Your task to perform on an android device: Open Amazon Image 0: 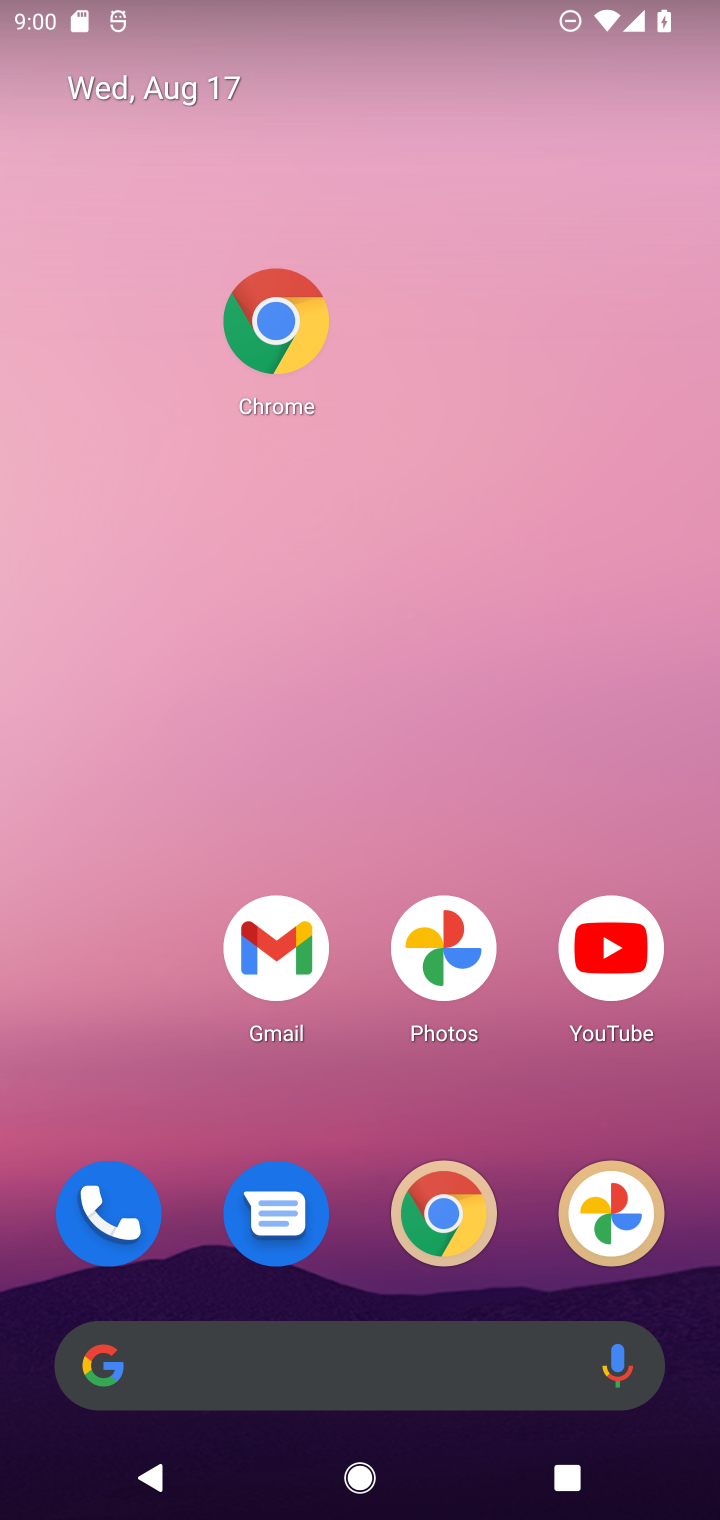
Step 0: click (406, 1237)
Your task to perform on an android device: Open Amazon Image 1: 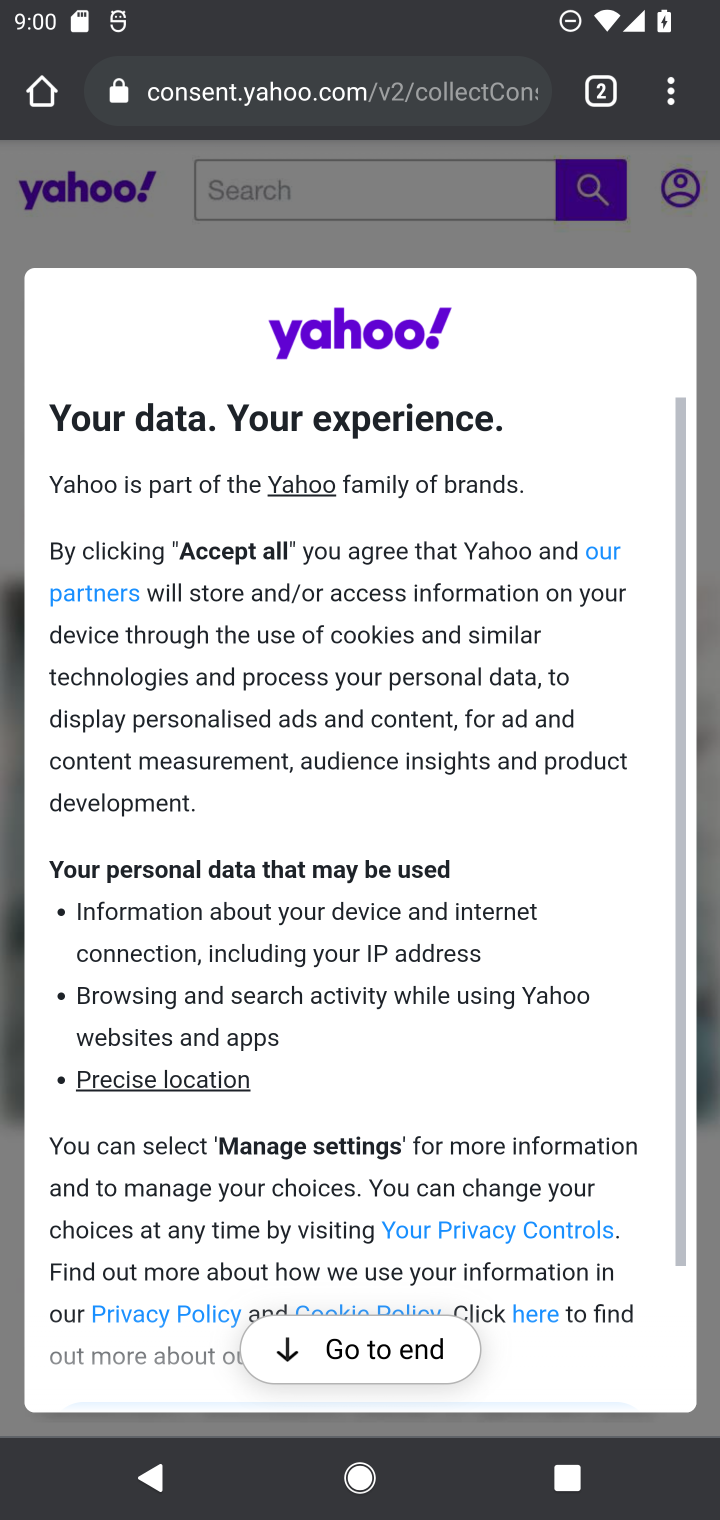
Step 1: click (521, 113)
Your task to perform on an android device: Open Amazon Image 2: 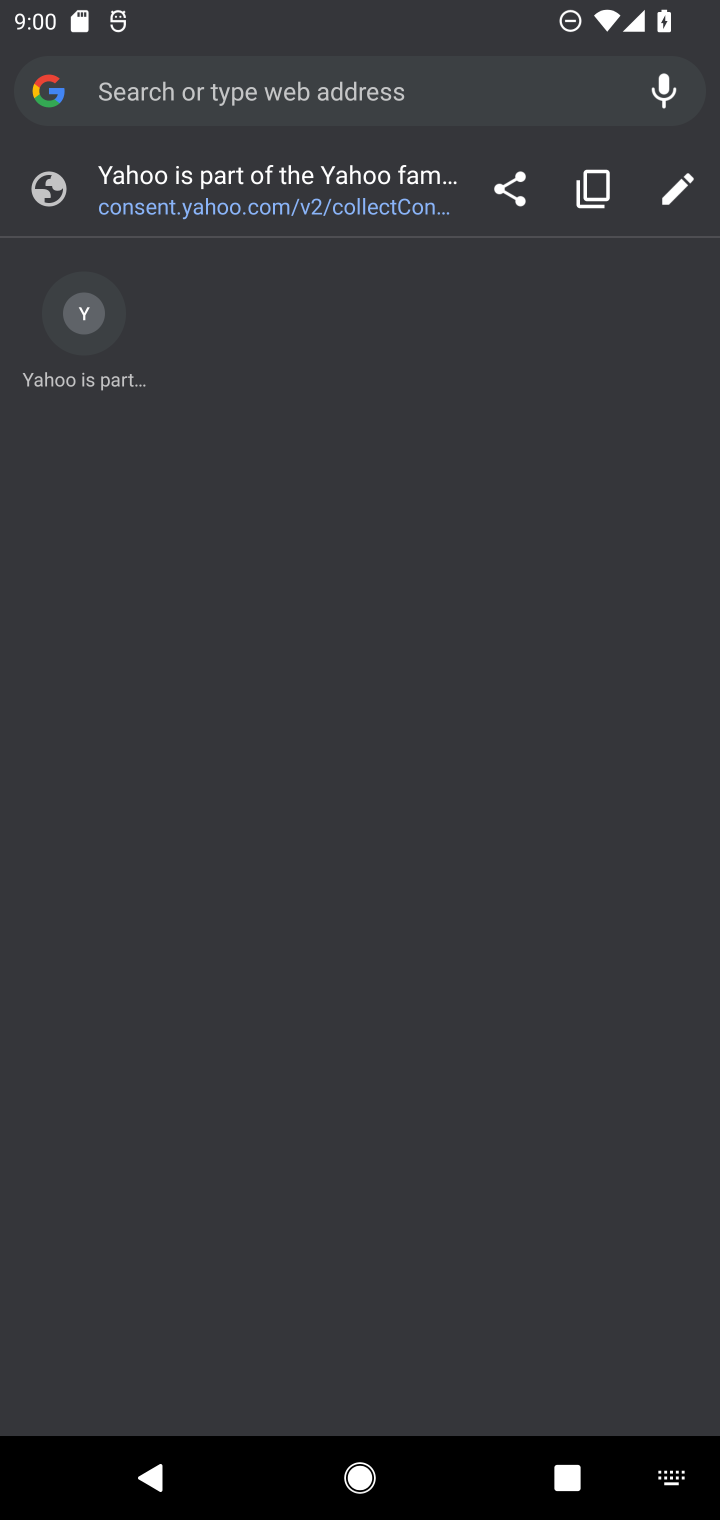
Step 2: type "amazon"
Your task to perform on an android device: Open Amazon Image 3: 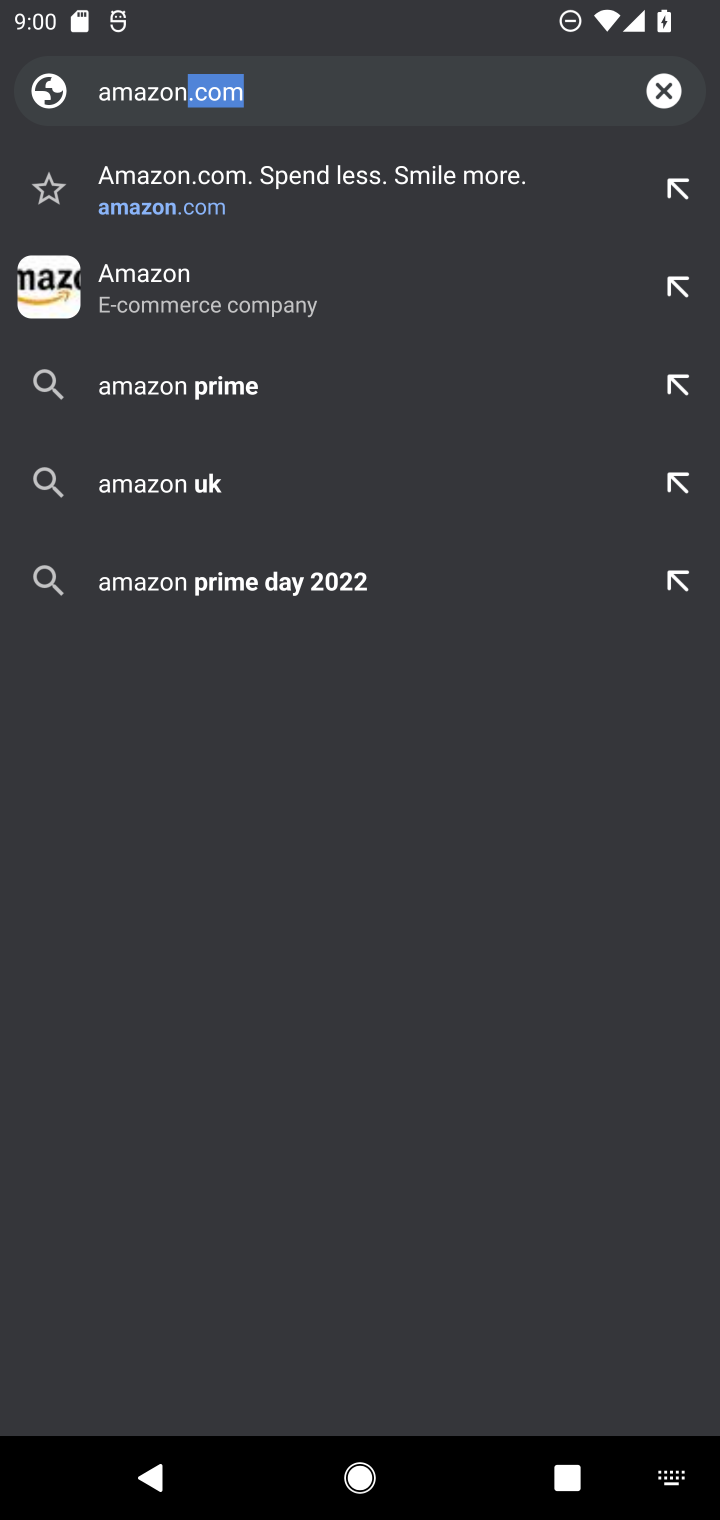
Step 3: click (378, 286)
Your task to perform on an android device: Open Amazon Image 4: 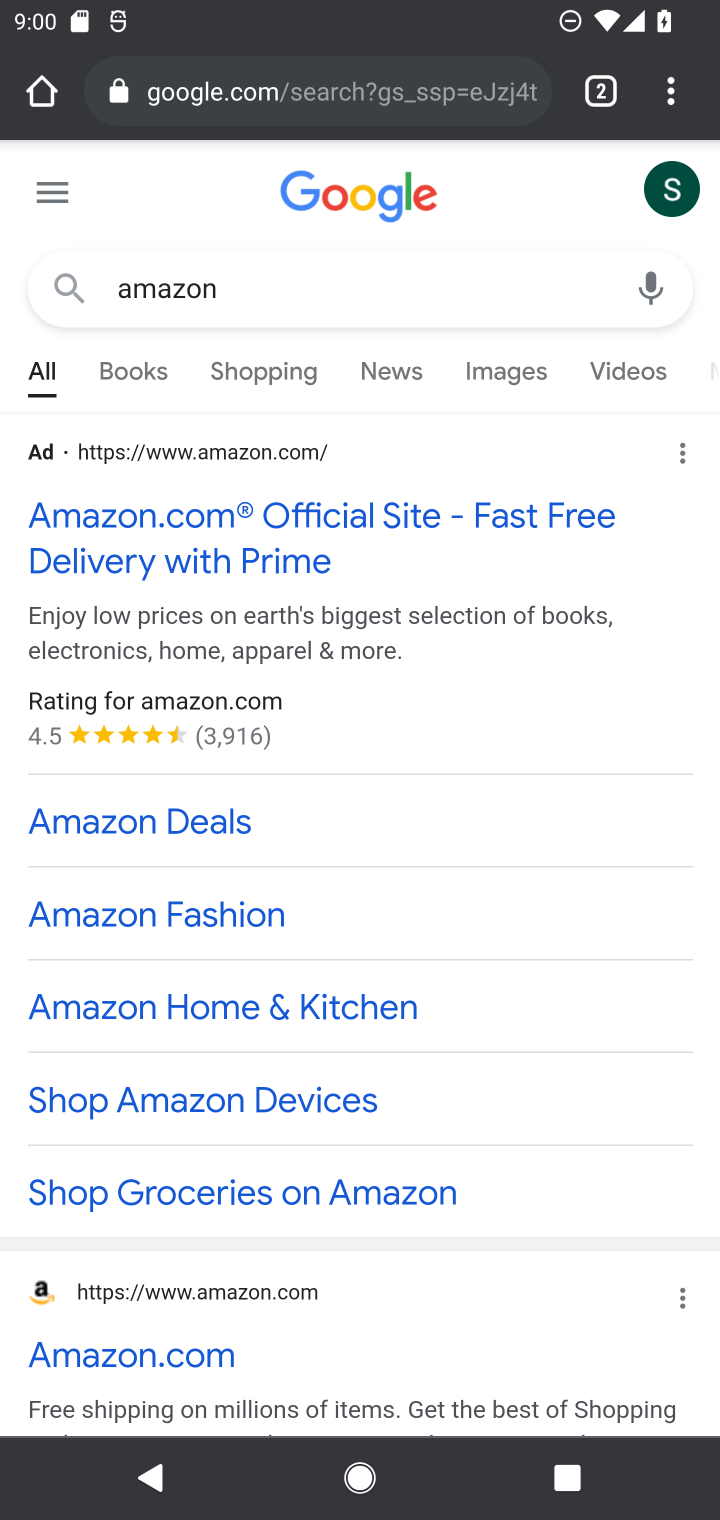
Step 4: click (255, 557)
Your task to perform on an android device: Open Amazon Image 5: 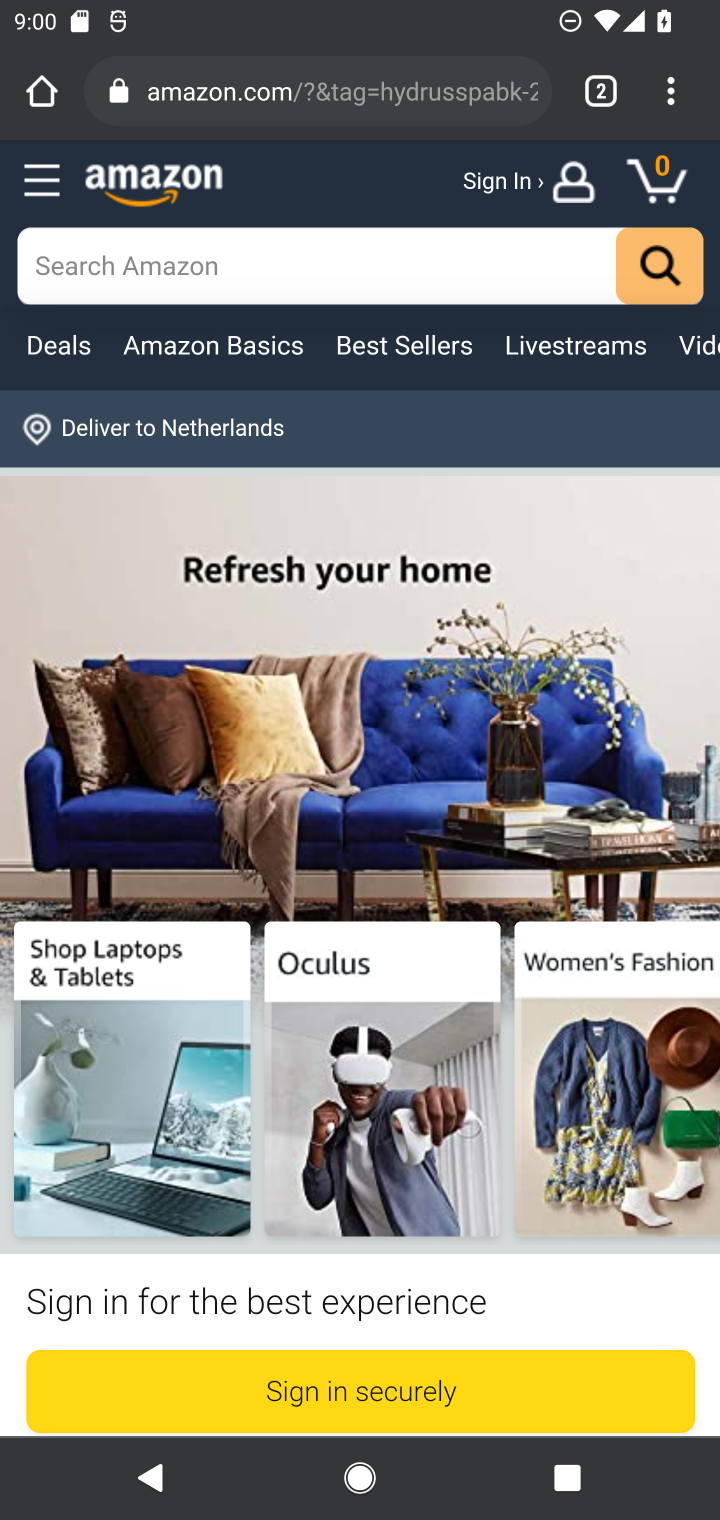
Step 5: task complete